Your task to perform on an android device: Open calendar and show me the second week of next month Image 0: 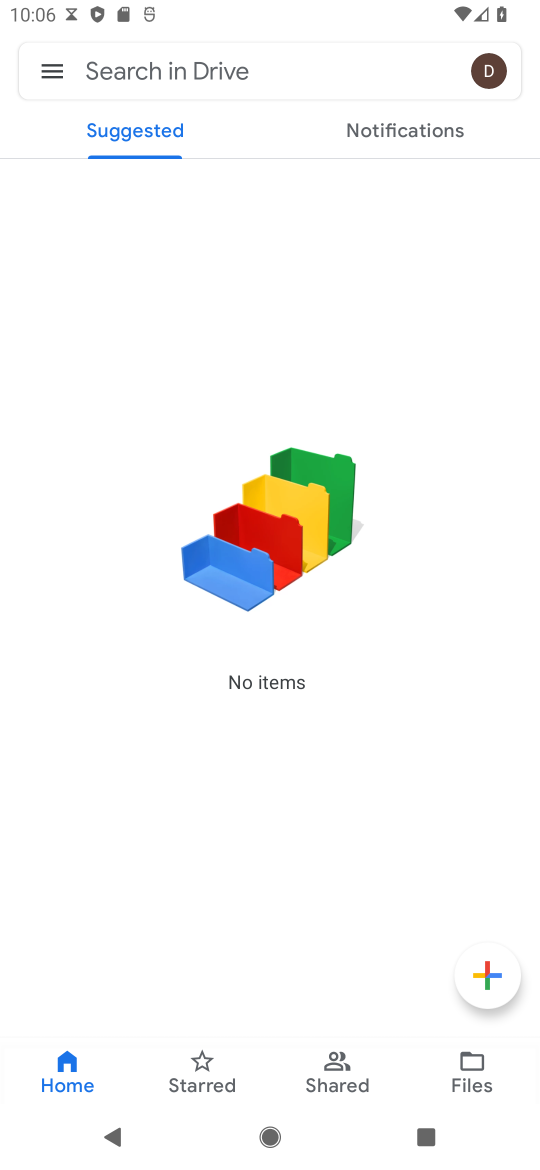
Step 0: press home button
Your task to perform on an android device: Open calendar and show me the second week of next month Image 1: 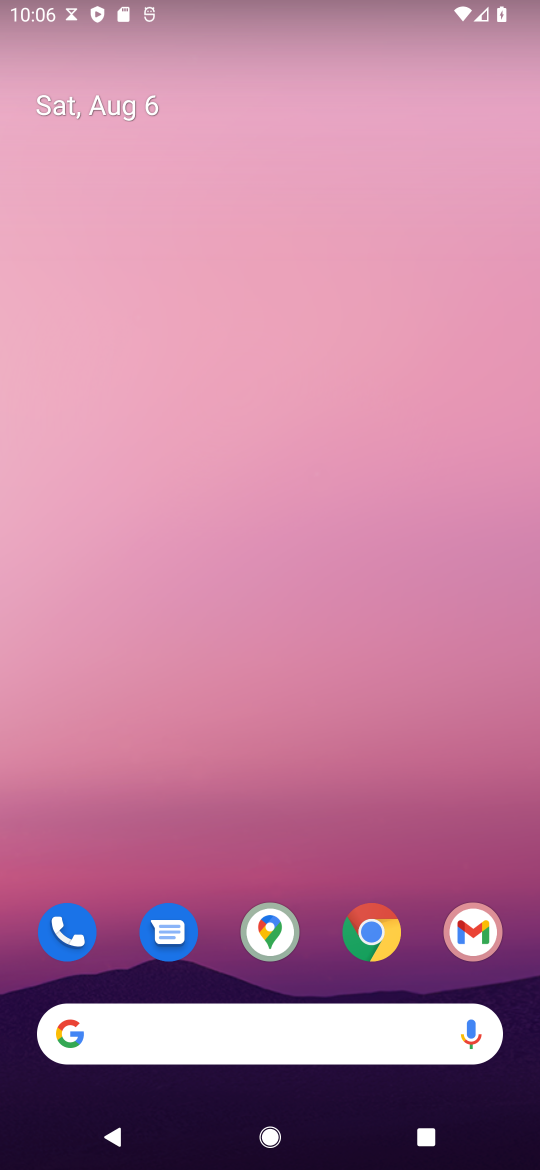
Step 1: drag from (192, 1027) to (394, 532)
Your task to perform on an android device: Open calendar and show me the second week of next month Image 2: 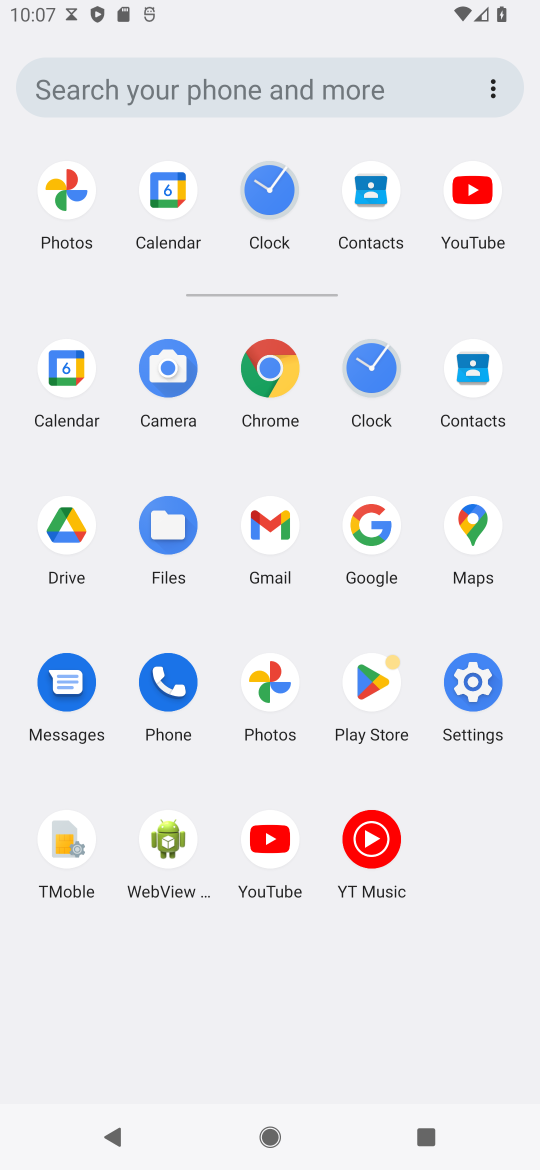
Step 2: click (65, 371)
Your task to perform on an android device: Open calendar and show me the second week of next month Image 3: 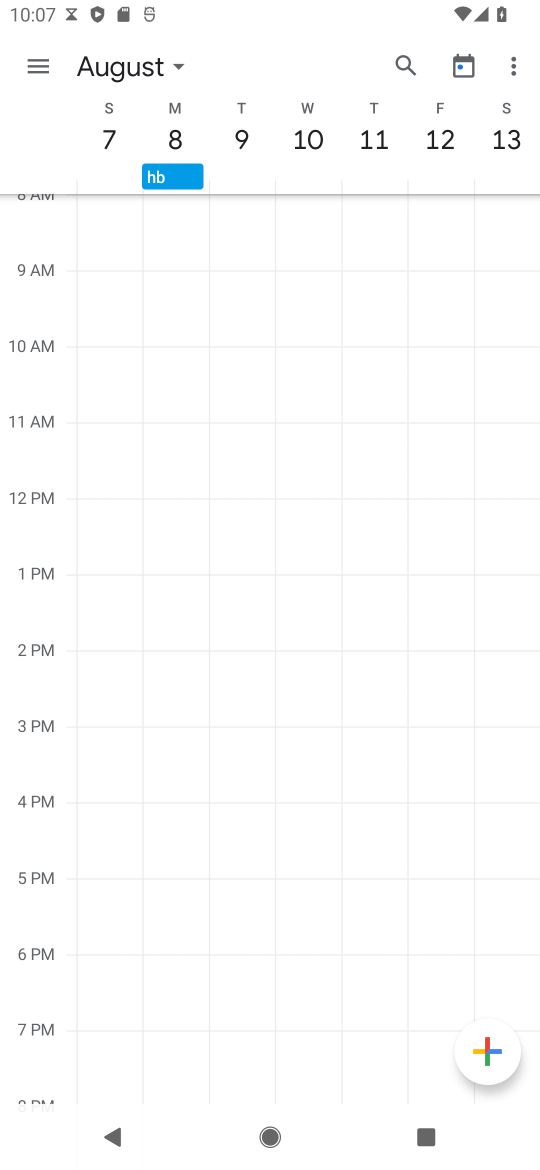
Step 3: click (172, 66)
Your task to perform on an android device: Open calendar and show me the second week of next month Image 4: 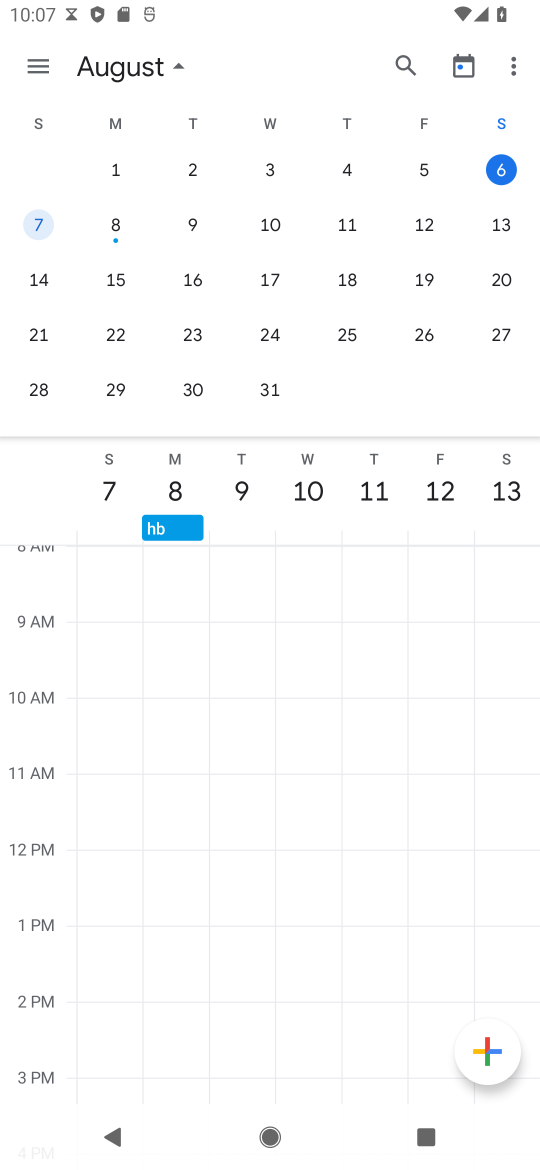
Step 4: drag from (460, 304) to (0, 339)
Your task to perform on an android device: Open calendar and show me the second week of next month Image 5: 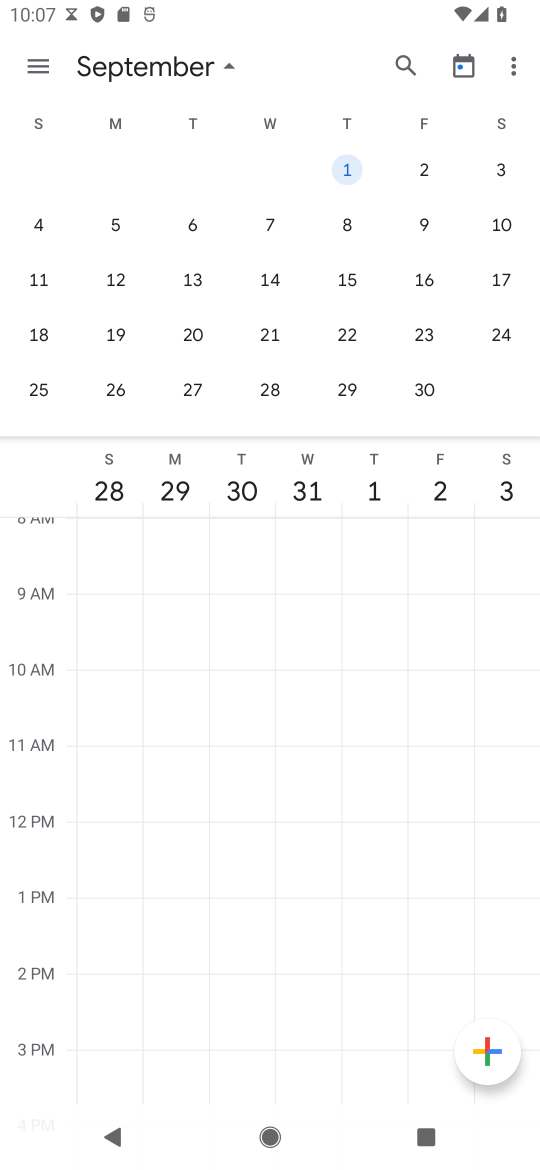
Step 5: click (114, 285)
Your task to perform on an android device: Open calendar and show me the second week of next month Image 6: 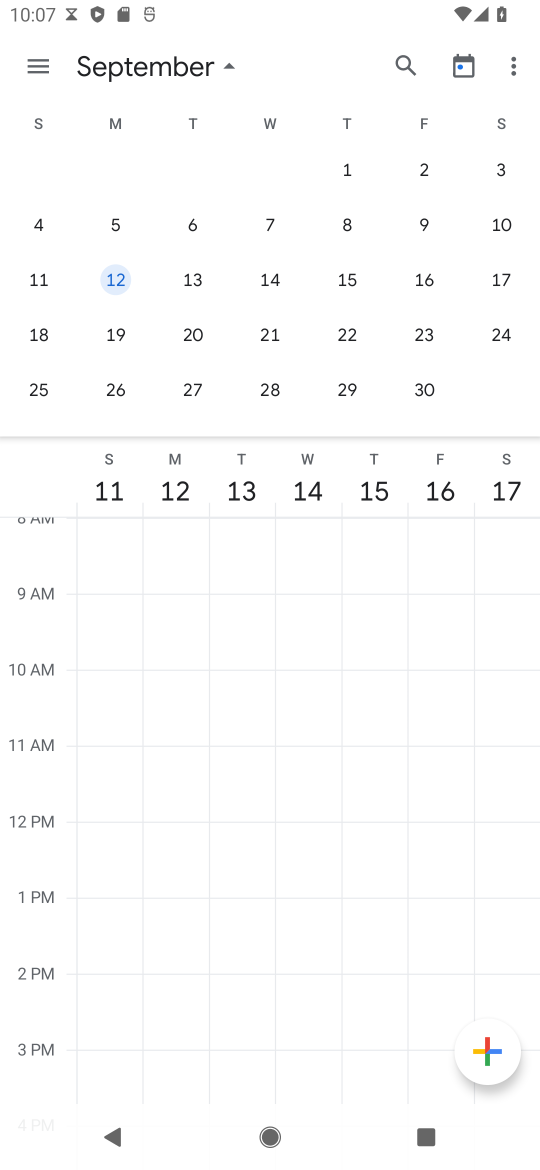
Step 6: click (33, 61)
Your task to perform on an android device: Open calendar and show me the second week of next month Image 7: 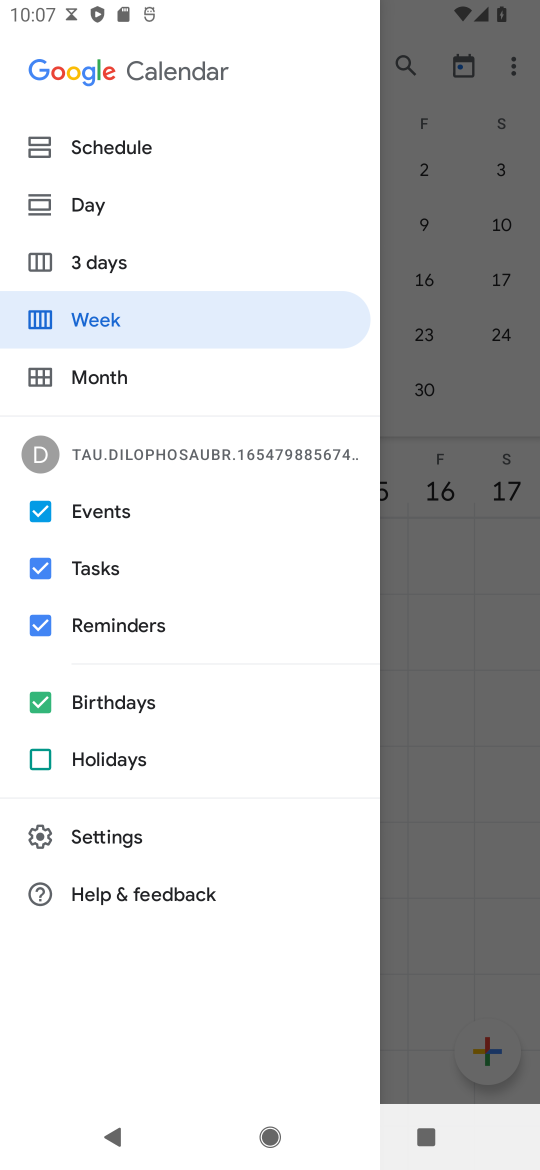
Step 7: click (113, 311)
Your task to perform on an android device: Open calendar and show me the second week of next month Image 8: 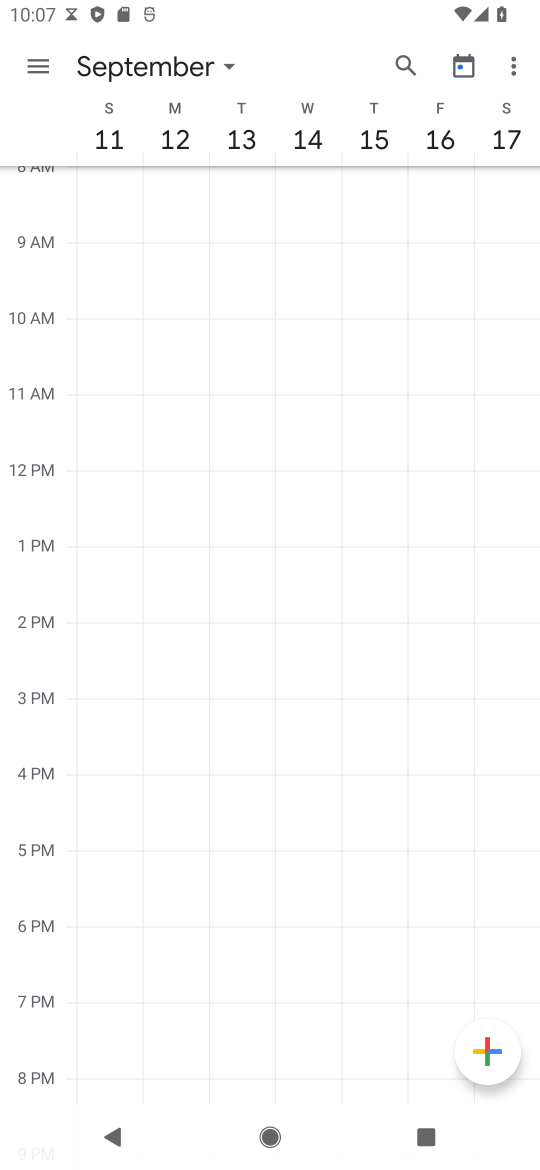
Step 8: task complete